Your task to perform on an android device: change the clock display to digital Image 0: 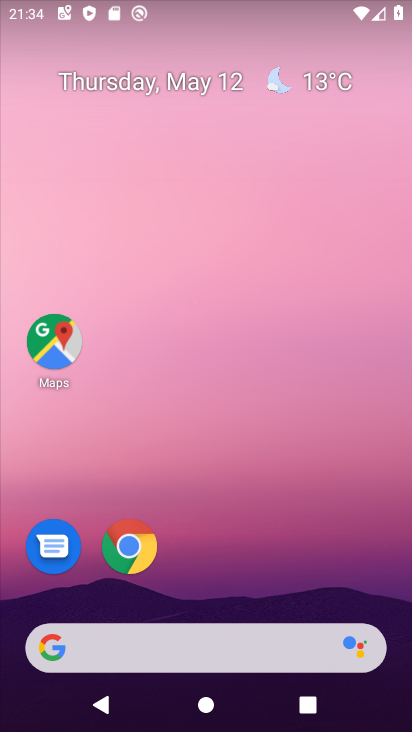
Step 0: drag from (299, 587) to (301, 74)
Your task to perform on an android device: change the clock display to digital Image 1: 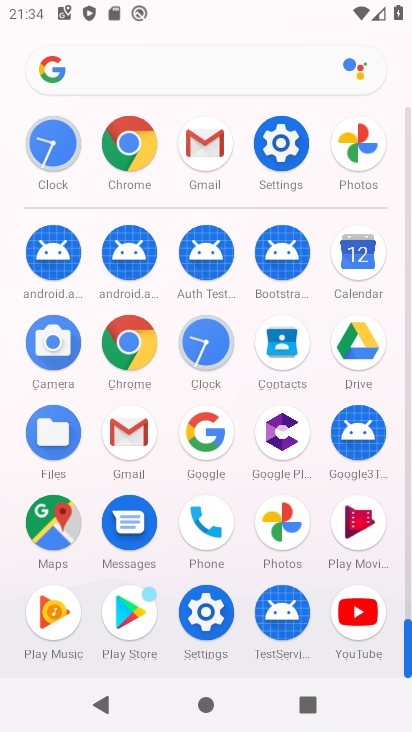
Step 1: click (201, 350)
Your task to perform on an android device: change the clock display to digital Image 2: 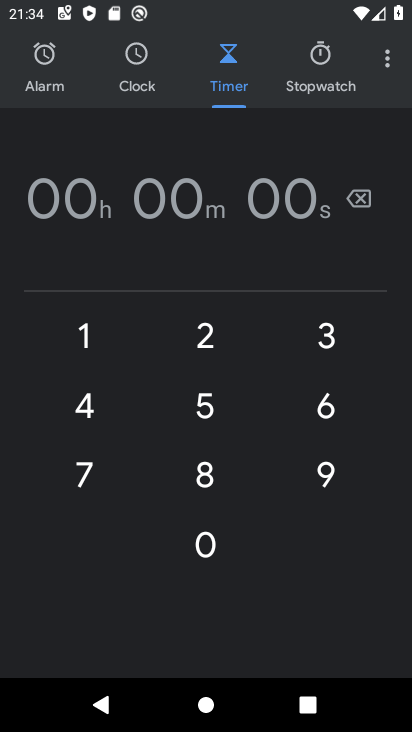
Step 2: click (384, 65)
Your task to perform on an android device: change the clock display to digital Image 3: 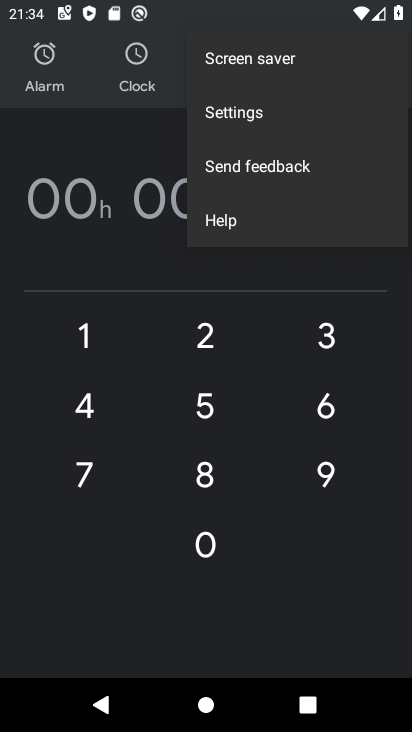
Step 3: click (256, 106)
Your task to perform on an android device: change the clock display to digital Image 4: 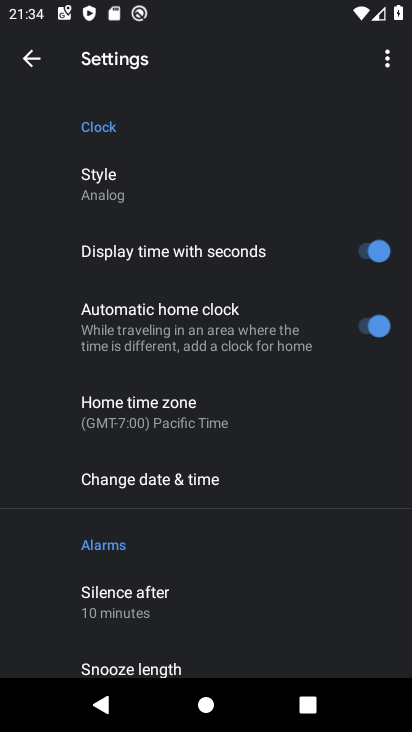
Step 4: click (133, 193)
Your task to perform on an android device: change the clock display to digital Image 5: 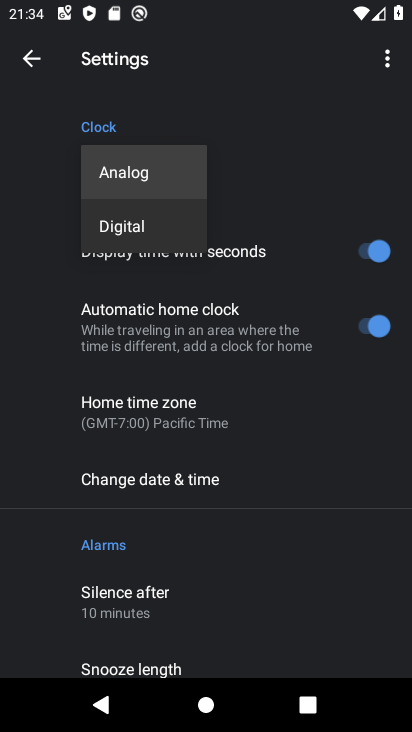
Step 5: click (173, 228)
Your task to perform on an android device: change the clock display to digital Image 6: 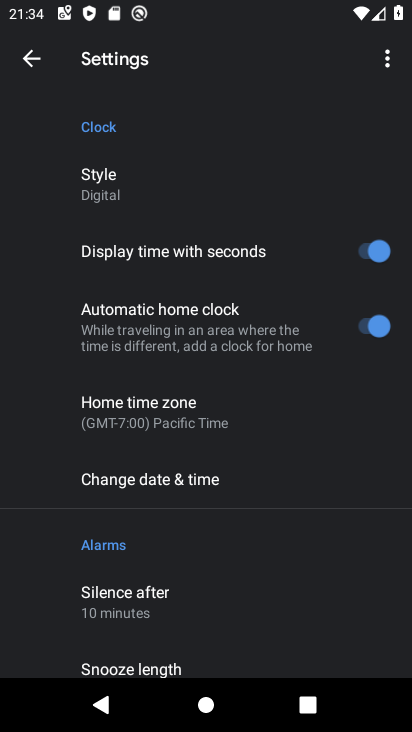
Step 6: task complete